Your task to perform on an android device: toggle pop-ups in chrome Image 0: 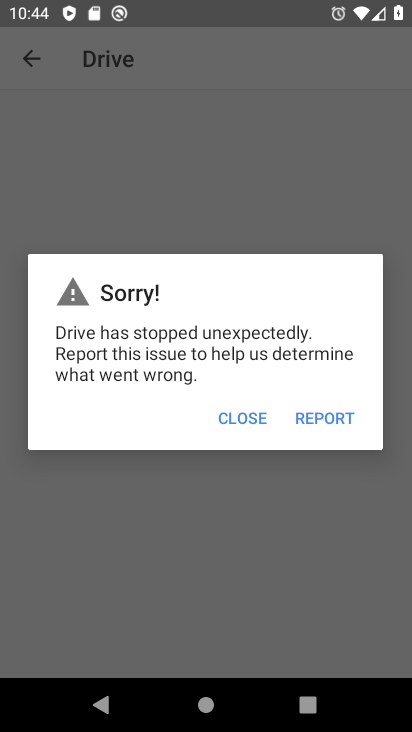
Step 0: click (237, 427)
Your task to perform on an android device: toggle pop-ups in chrome Image 1: 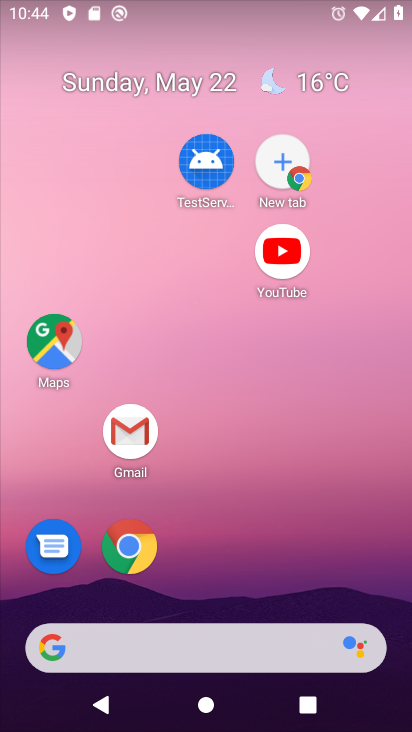
Step 1: drag from (254, 671) to (154, 0)
Your task to perform on an android device: toggle pop-ups in chrome Image 2: 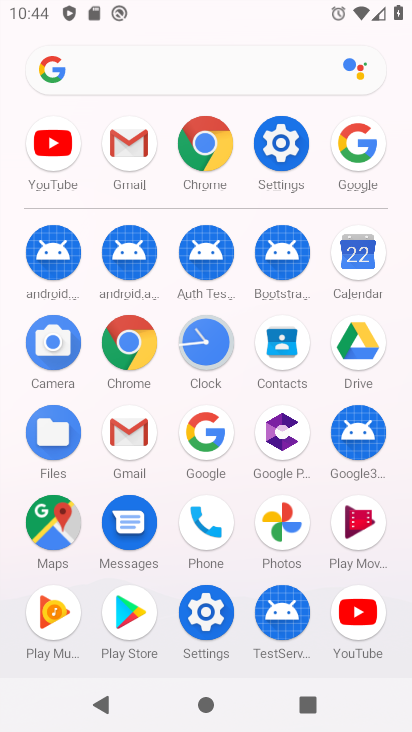
Step 2: click (212, 153)
Your task to perform on an android device: toggle pop-ups in chrome Image 3: 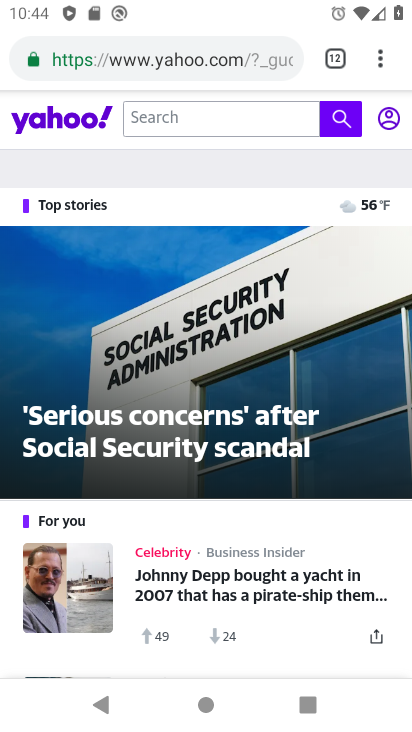
Step 3: drag from (382, 59) to (410, 164)
Your task to perform on an android device: toggle pop-ups in chrome Image 4: 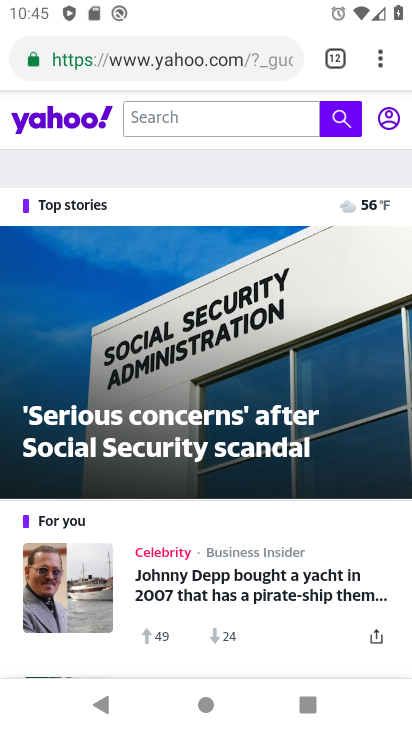
Step 4: drag from (382, 59) to (177, 120)
Your task to perform on an android device: toggle pop-ups in chrome Image 5: 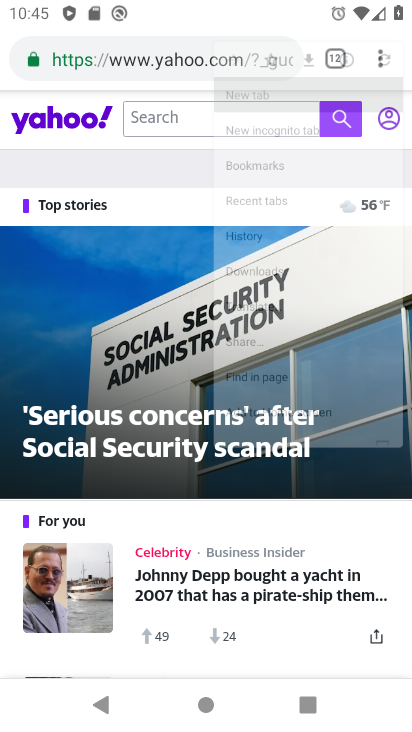
Step 5: click (178, 121)
Your task to perform on an android device: toggle pop-ups in chrome Image 6: 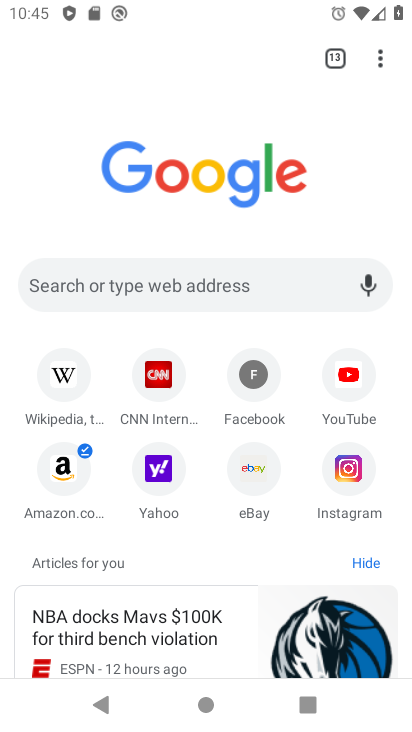
Step 6: click (385, 58)
Your task to perform on an android device: toggle pop-ups in chrome Image 7: 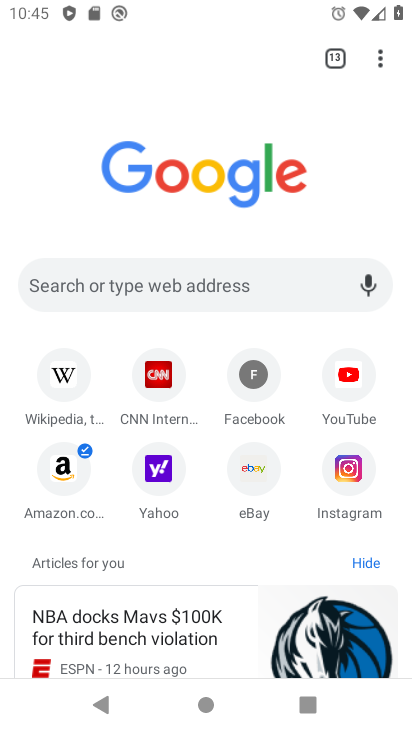
Step 7: click (385, 63)
Your task to perform on an android device: toggle pop-ups in chrome Image 8: 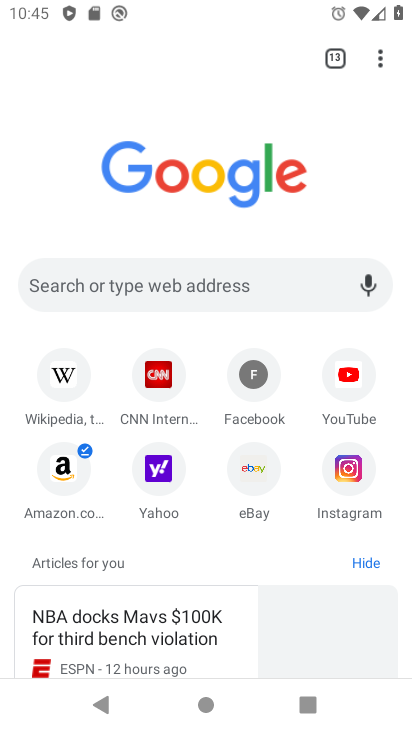
Step 8: drag from (373, 64) to (145, 498)
Your task to perform on an android device: toggle pop-ups in chrome Image 9: 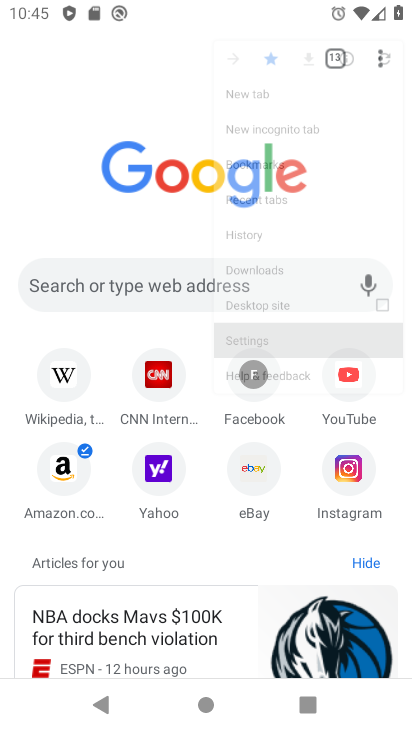
Step 9: click (142, 498)
Your task to perform on an android device: toggle pop-ups in chrome Image 10: 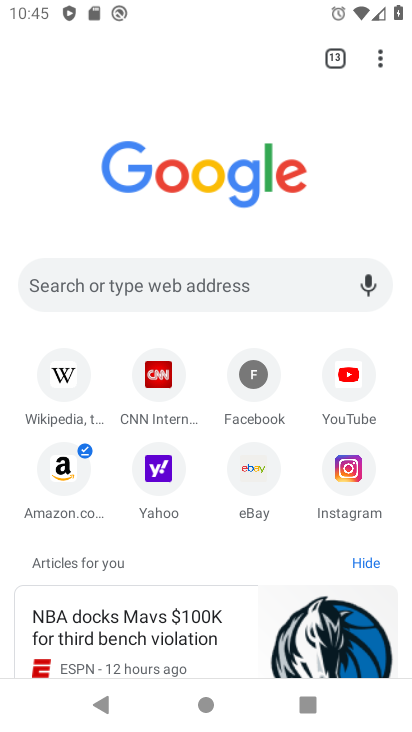
Step 10: click (142, 498)
Your task to perform on an android device: toggle pop-ups in chrome Image 11: 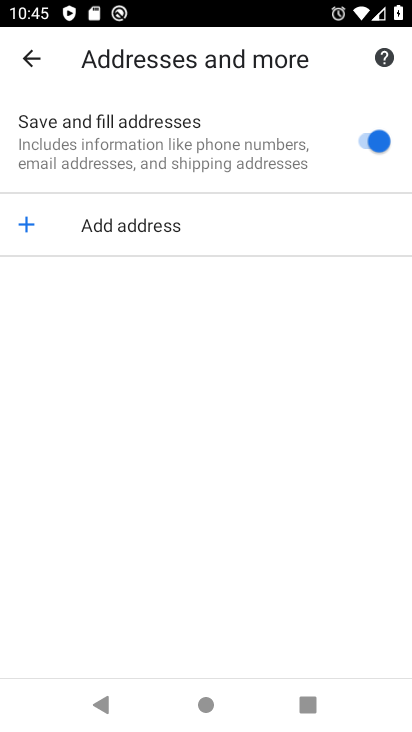
Step 11: click (17, 78)
Your task to perform on an android device: toggle pop-ups in chrome Image 12: 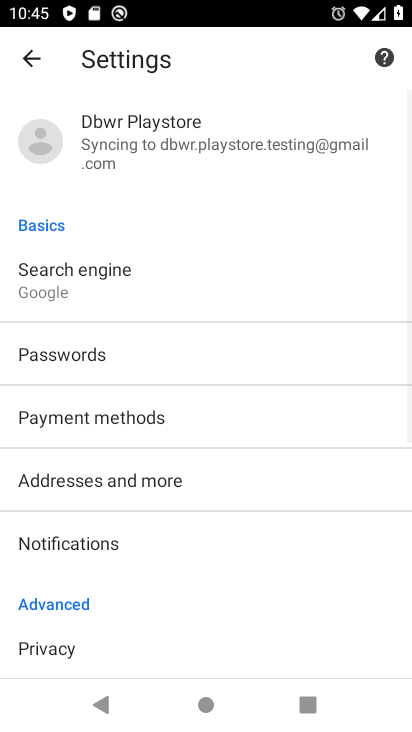
Step 12: drag from (122, 537) to (153, 130)
Your task to perform on an android device: toggle pop-ups in chrome Image 13: 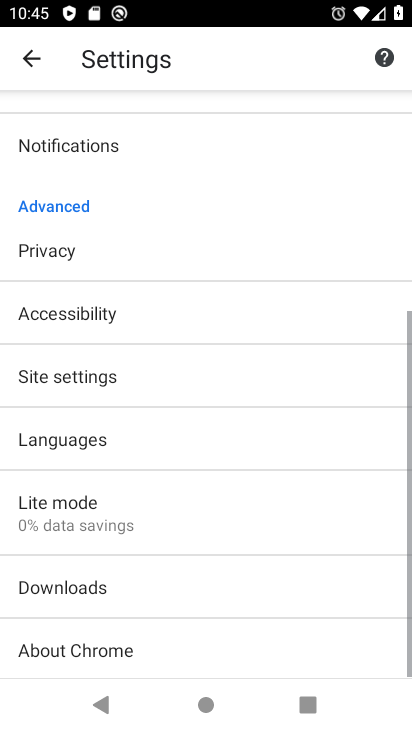
Step 13: drag from (84, 401) to (188, 110)
Your task to perform on an android device: toggle pop-ups in chrome Image 14: 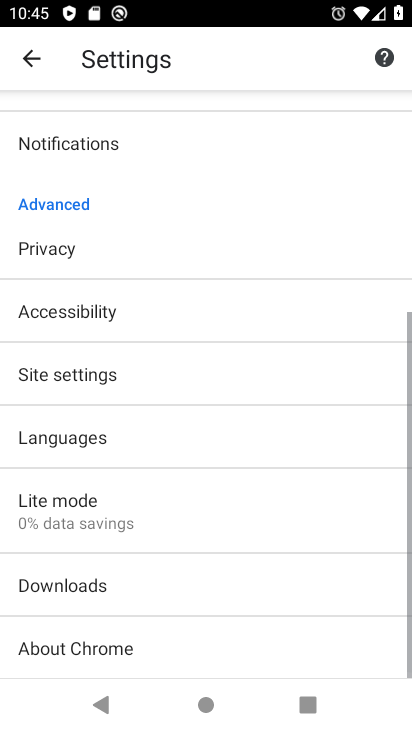
Step 14: drag from (218, 403) to (301, 119)
Your task to perform on an android device: toggle pop-ups in chrome Image 15: 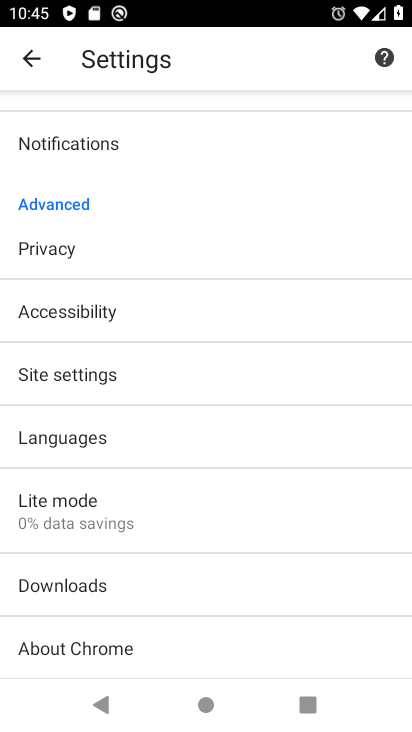
Step 15: click (80, 370)
Your task to perform on an android device: toggle pop-ups in chrome Image 16: 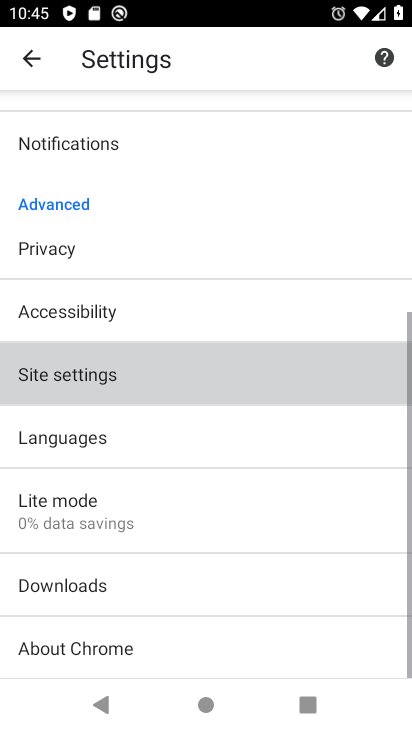
Step 16: click (80, 370)
Your task to perform on an android device: toggle pop-ups in chrome Image 17: 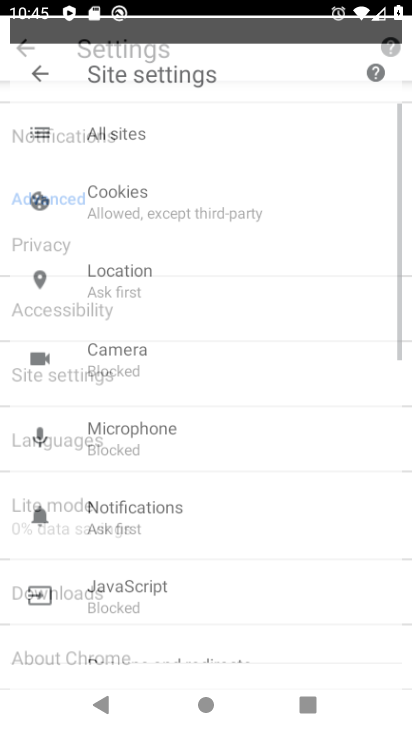
Step 17: click (81, 371)
Your task to perform on an android device: toggle pop-ups in chrome Image 18: 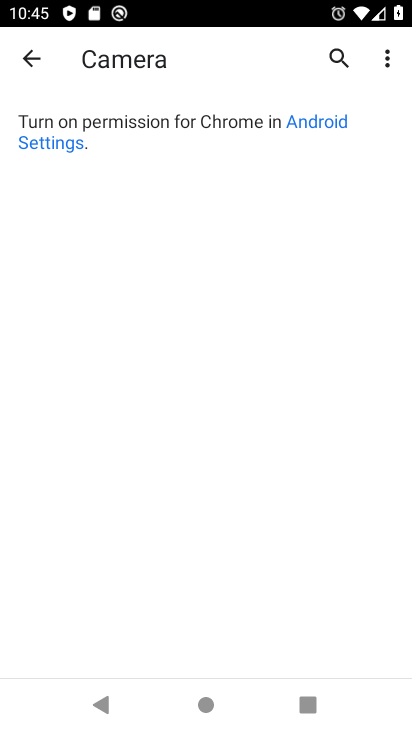
Step 18: click (27, 63)
Your task to perform on an android device: toggle pop-ups in chrome Image 19: 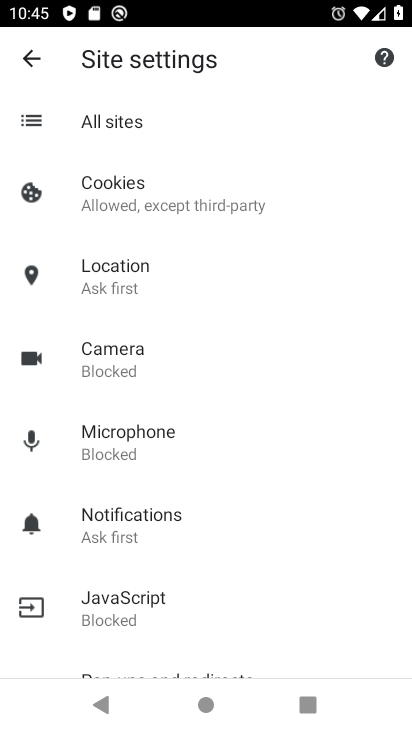
Step 19: drag from (135, 545) to (118, 176)
Your task to perform on an android device: toggle pop-ups in chrome Image 20: 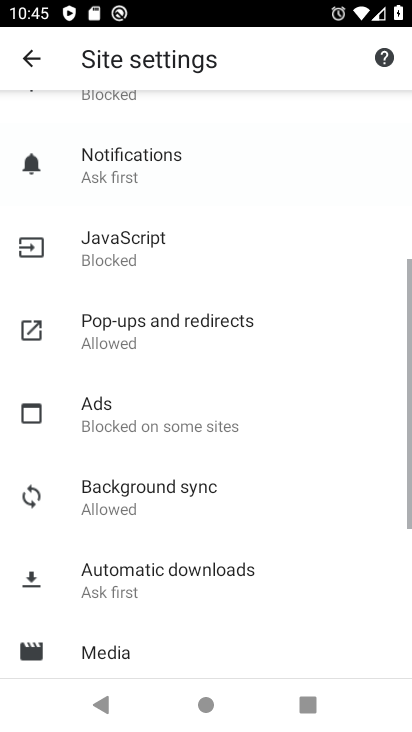
Step 20: drag from (163, 429) to (167, 201)
Your task to perform on an android device: toggle pop-ups in chrome Image 21: 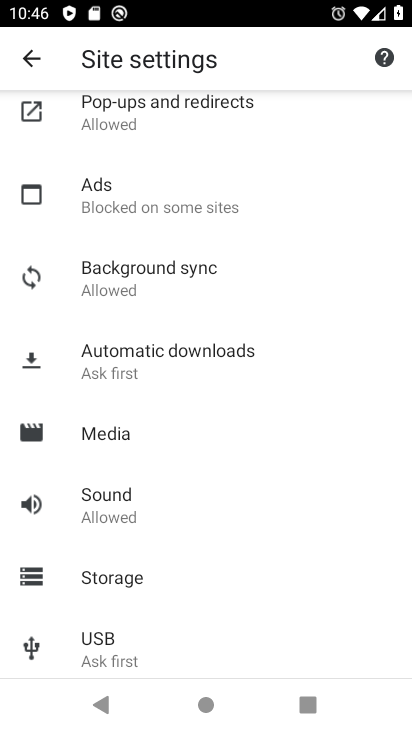
Step 21: click (112, 114)
Your task to perform on an android device: toggle pop-ups in chrome Image 22: 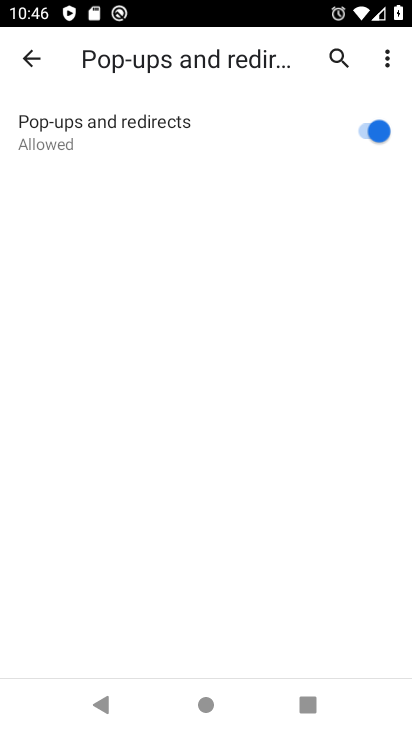
Step 22: click (371, 137)
Your task to perform on an android device: toggle pop-ups in chrome Image 23: 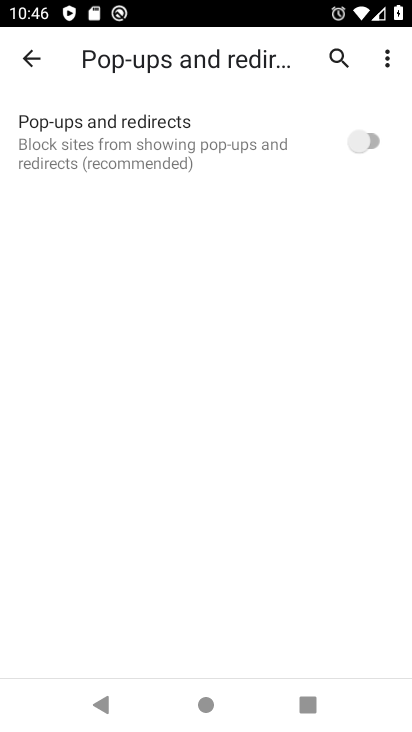
Step 23: task complete